Your task to perform on an android device: turn off location history Image 0: 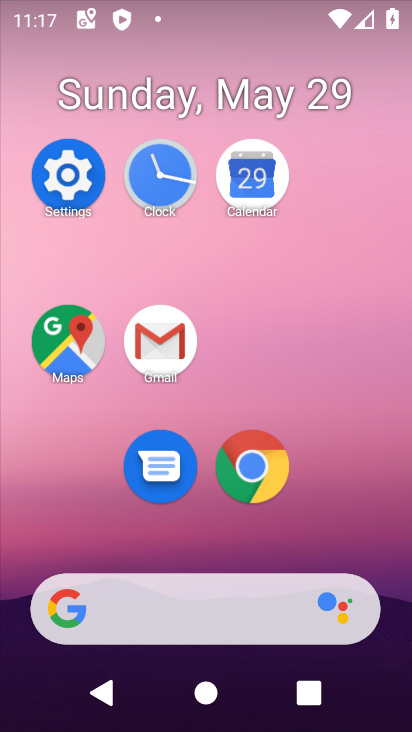
Step 0: click (39, 152)
Your task to perform on an android device: turn off location history Image 1: 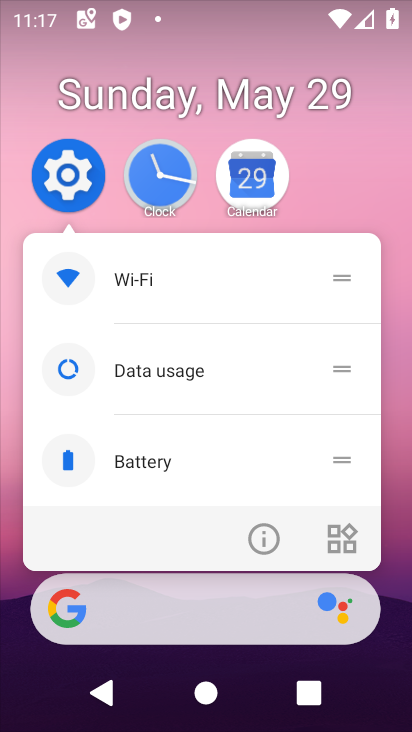
Step 1: click (50, 162)
Your task to perform on an android device: turn off location history Image 2: 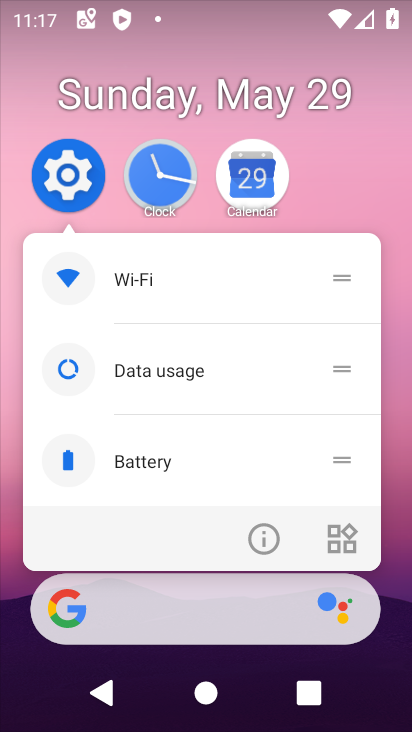
Step 2: click (62, 173)
Your task to perform on an android device: turn off location history Image 3: 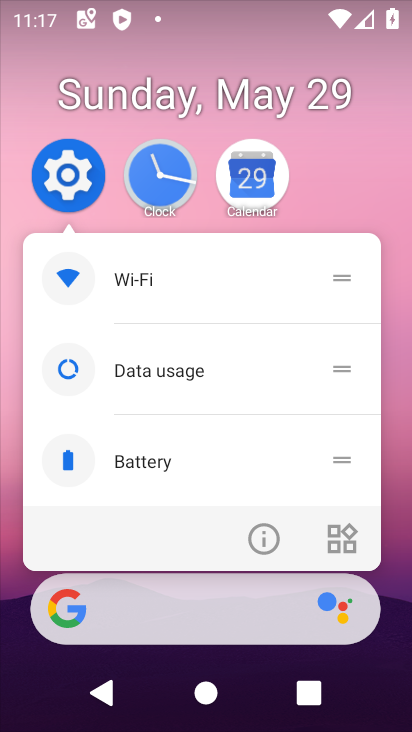
Step 3: click (92, 211)
Your task to perform on an android device: turn off location history Image 4: 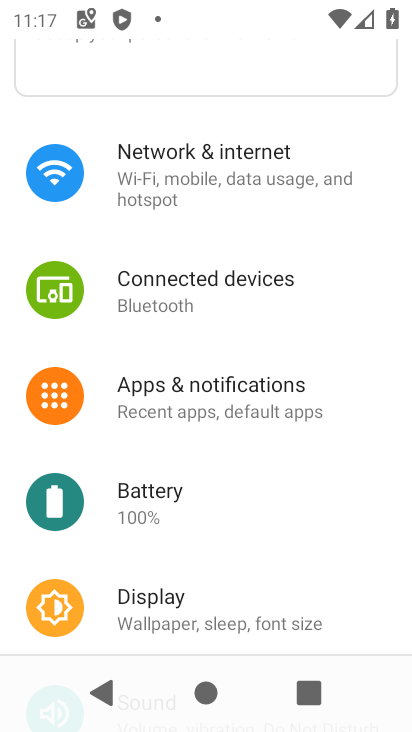
Step 4: drag from (254, 504) to (283, 164)
Your task to perform on an android device: turn off location history Image 5: 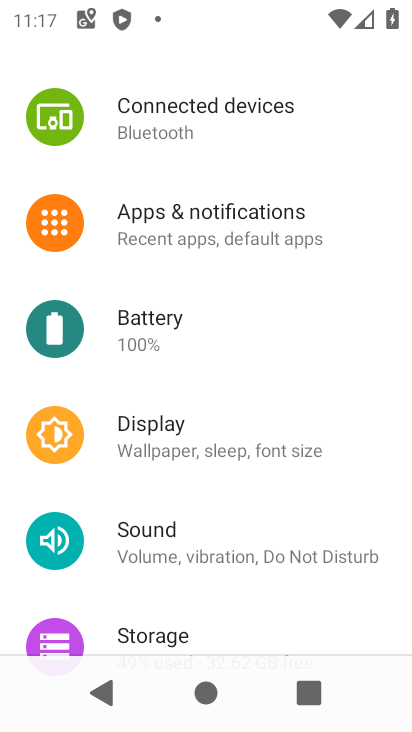
Step 5: drag from (270, 487) to (299, 165)
Your task to perform on an android device: turn off location history Image 6: 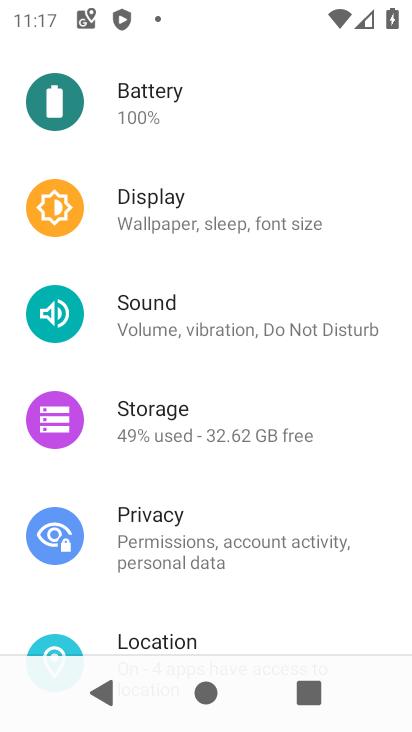
Step 6: drag from (220, 528) to (259, 204)
Your task to perform on an android device: turn off location history Image 7: 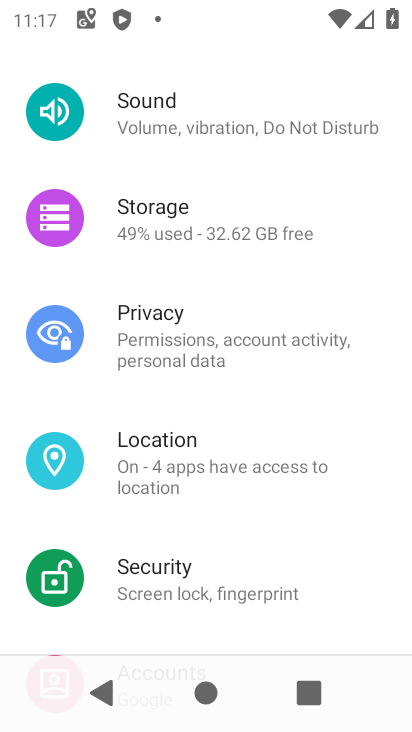
Step 7: click (207, 445)
Your task to perform on an android device: turn off location history Image 8: 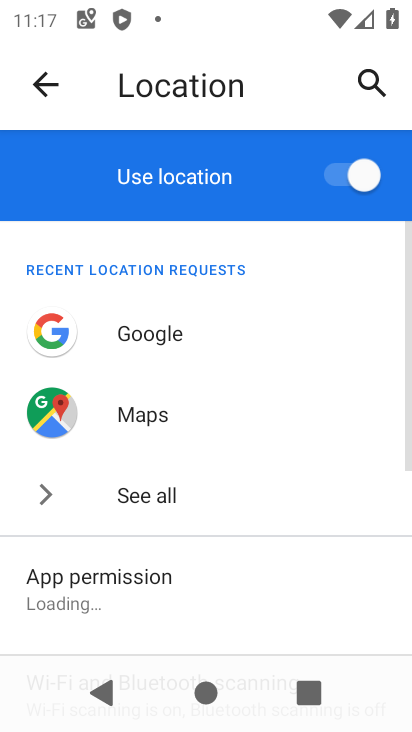
Step 8: drag from (207, 445) to (228, 62)
Your task to perform on an android device: turn off location history Image 9: 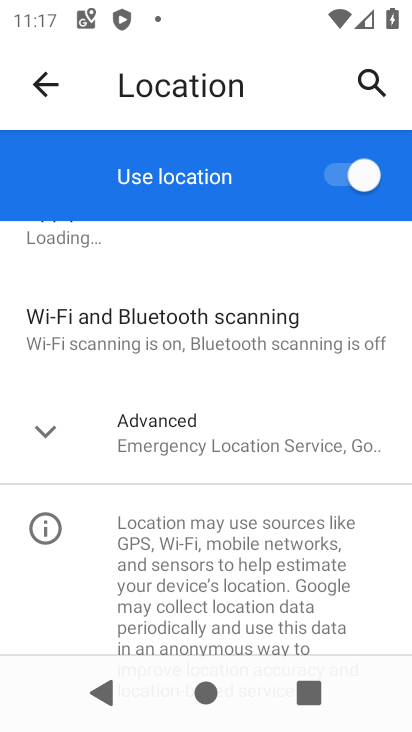
Step 9: click (213, 460)
Your task to perform on an android device: turn off location history Image 10: 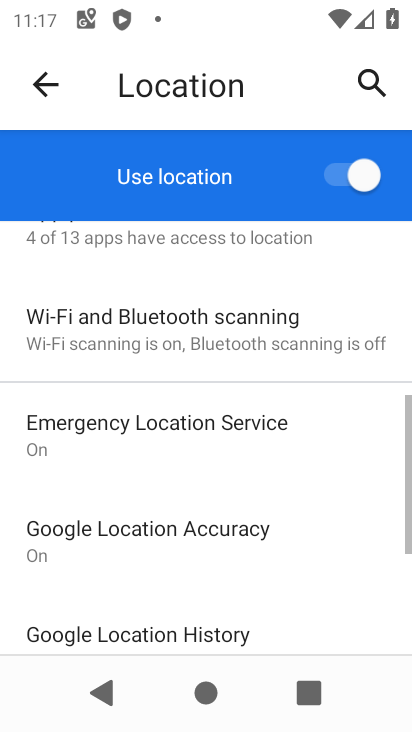
Step 10: drag from (194, 591) to (225, 244)
Your task to perform on an android device: turn off location history Image 11: 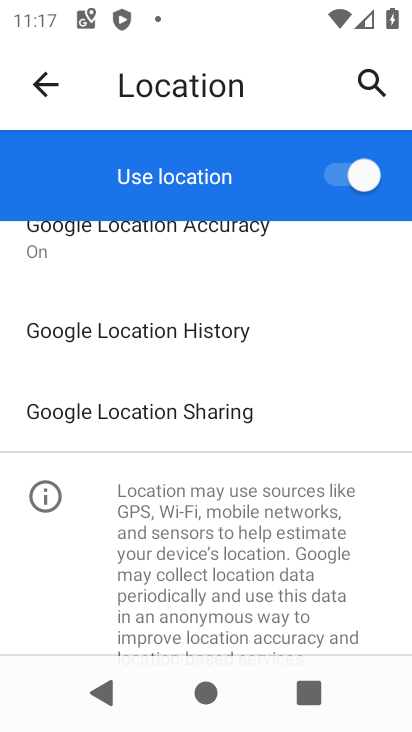
Step 11: click (221, 343)
Your task to perform on an android device: turn off location history Image 12: 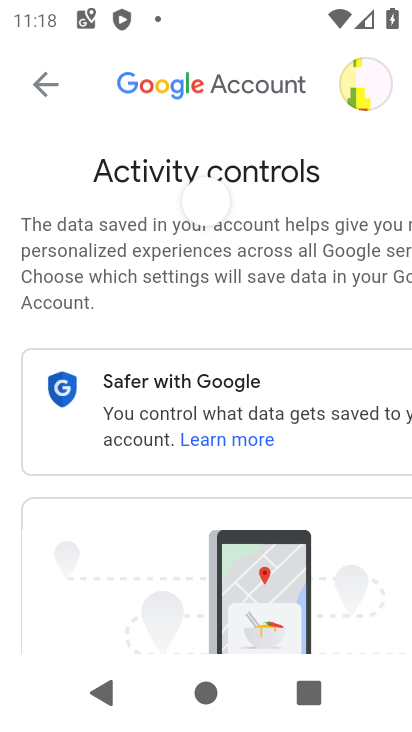
Step 12: drag from (313, 564) to (325, 262)
Your task to perform on an android device: turn off location history Image 13: 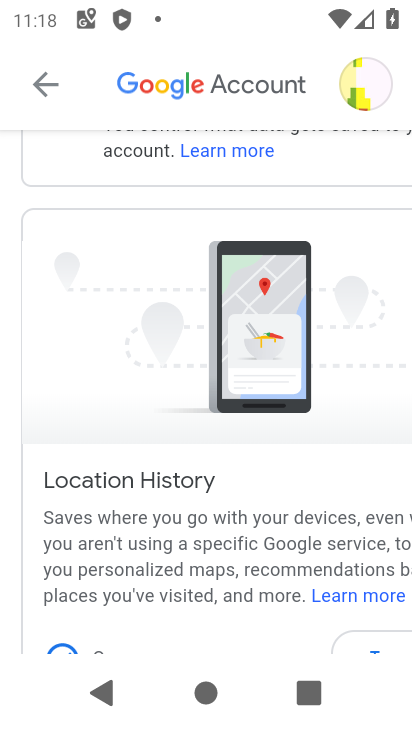
Step 13: drag from (274, 592) to (302, 265)
Your task to perform on an android device: turn off location history Image 14: 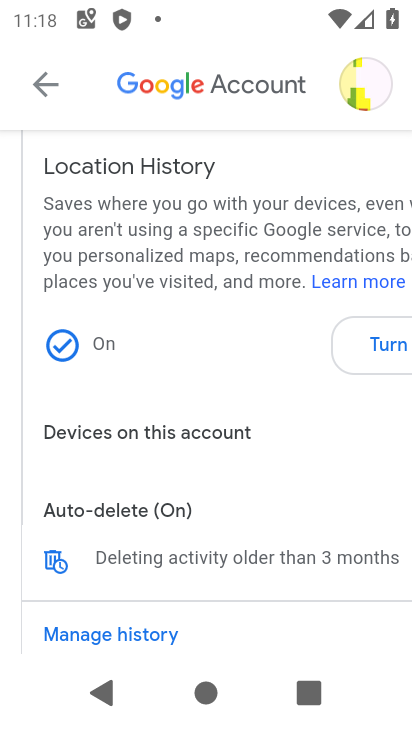
Step 14: click (376, 344)
Your task to perform on an android device: turn off location history Image 15: 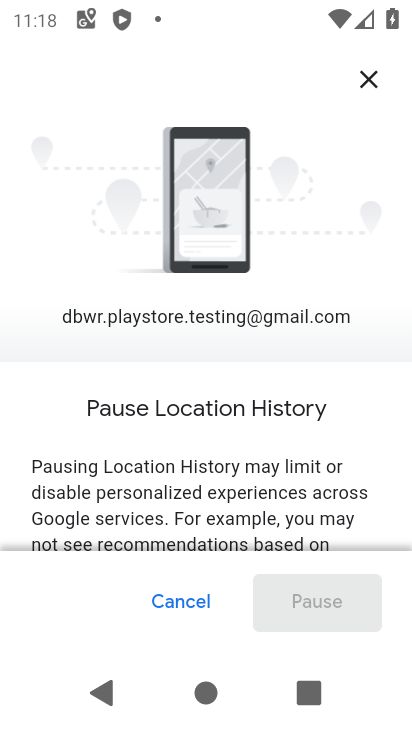
Step 15: drag from (316, 534) to (305, 185)
Your task to perform on an android device: turn off location history Image 16: 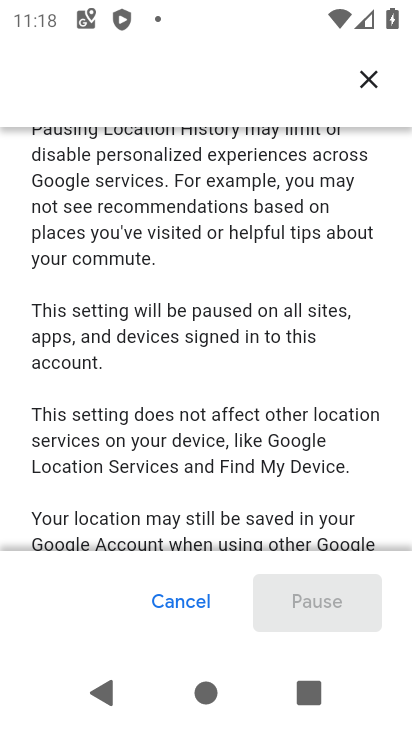
Step 16: drag from (293, 500) to (300, 158)
Your task to perform on an android device: turn off location history Image 17: 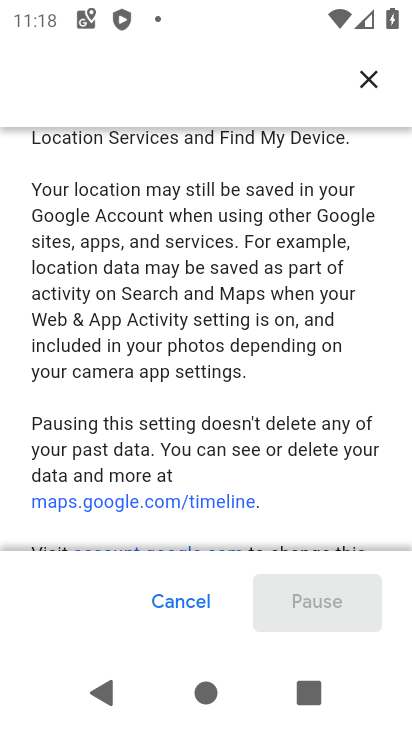
Step 17: drag from (310, 292) to (293, 87)
Your task to perform on an android device: turn off location history Image 18: 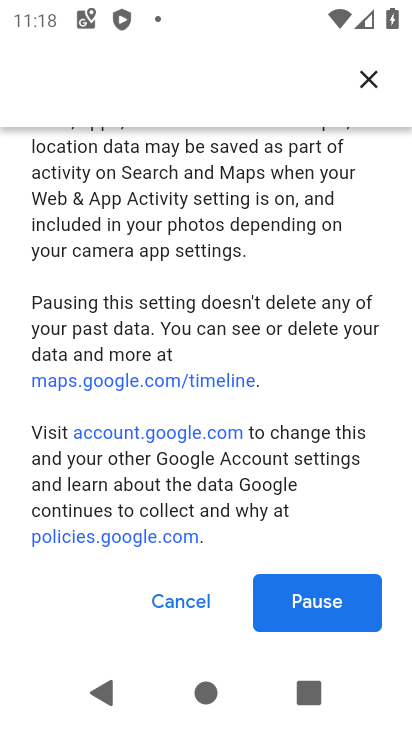
Step 18: click (313, 594)
Your task to perform on an android device: turn off location history Image 19: 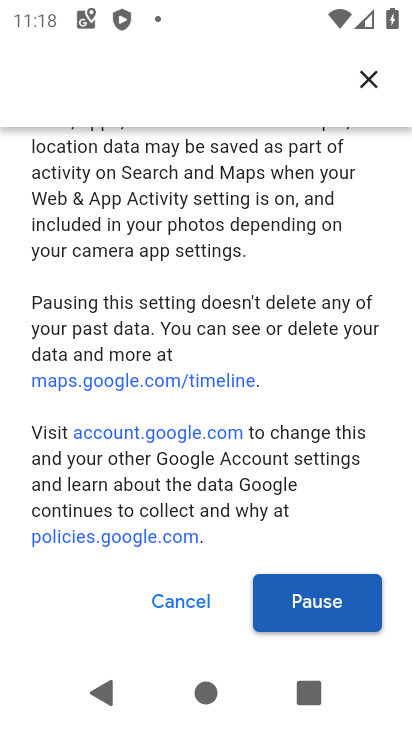
Step 19: click (326, 603)
Your task to perform on an android device: turn off location history Image 20: 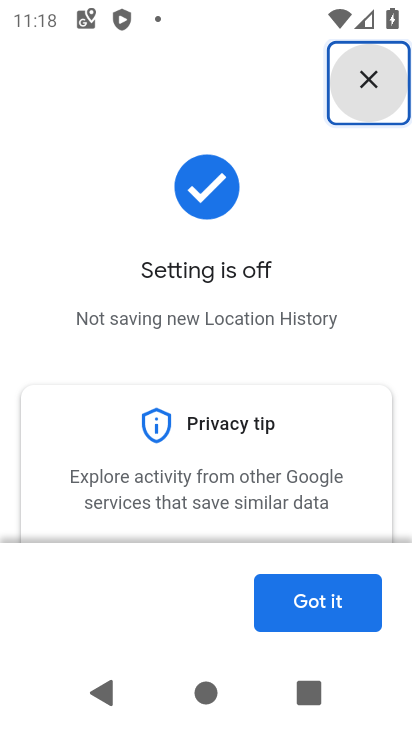
Step 20: click (330, 600)
Your task to perform on an android device: turn off location history Image 21: 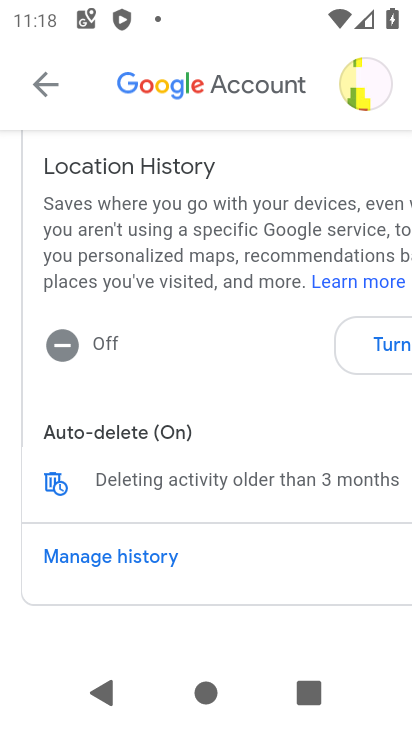
Step 21: task complete